Your task to perform on an android device: see tabs open on other devices in the chrome app Image 0: 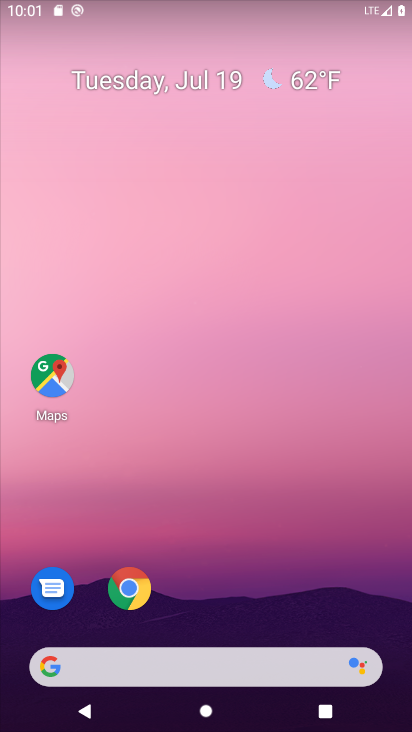
Step 0: click (131, 590)
Your task to perform on an android device: see tabs open on other devices in the chrome app Image 1: 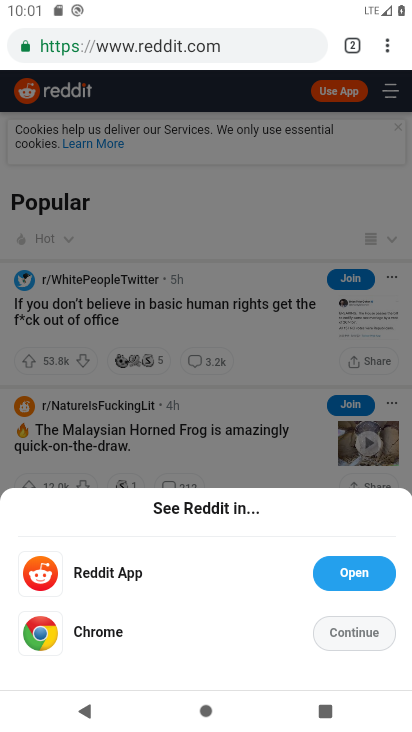
Step 1: click (391, 45)
Your task to perform on an android device: see tabs open on other devices in the chrome app Image 2: 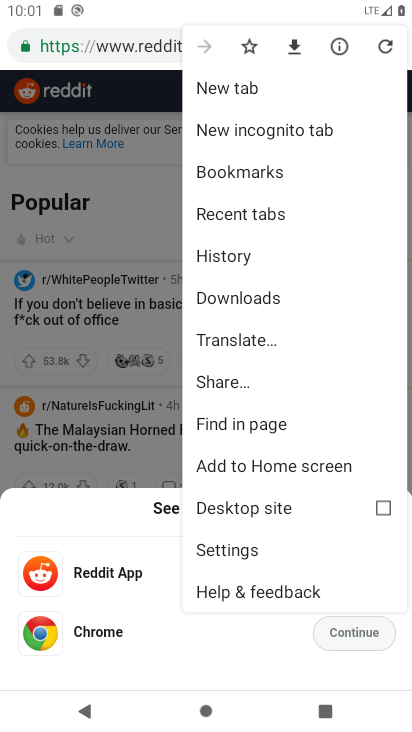
Step 2: click (266, 223)
Your task to perform on an android device: see tabs open on other devices in the chrome app Image 3: 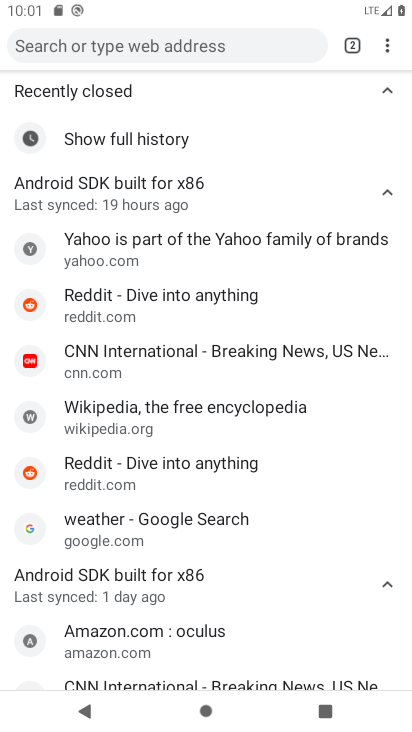
Step 3: task complete